Your task to perform on an android device: open app "Facebook Lite" Image 0: 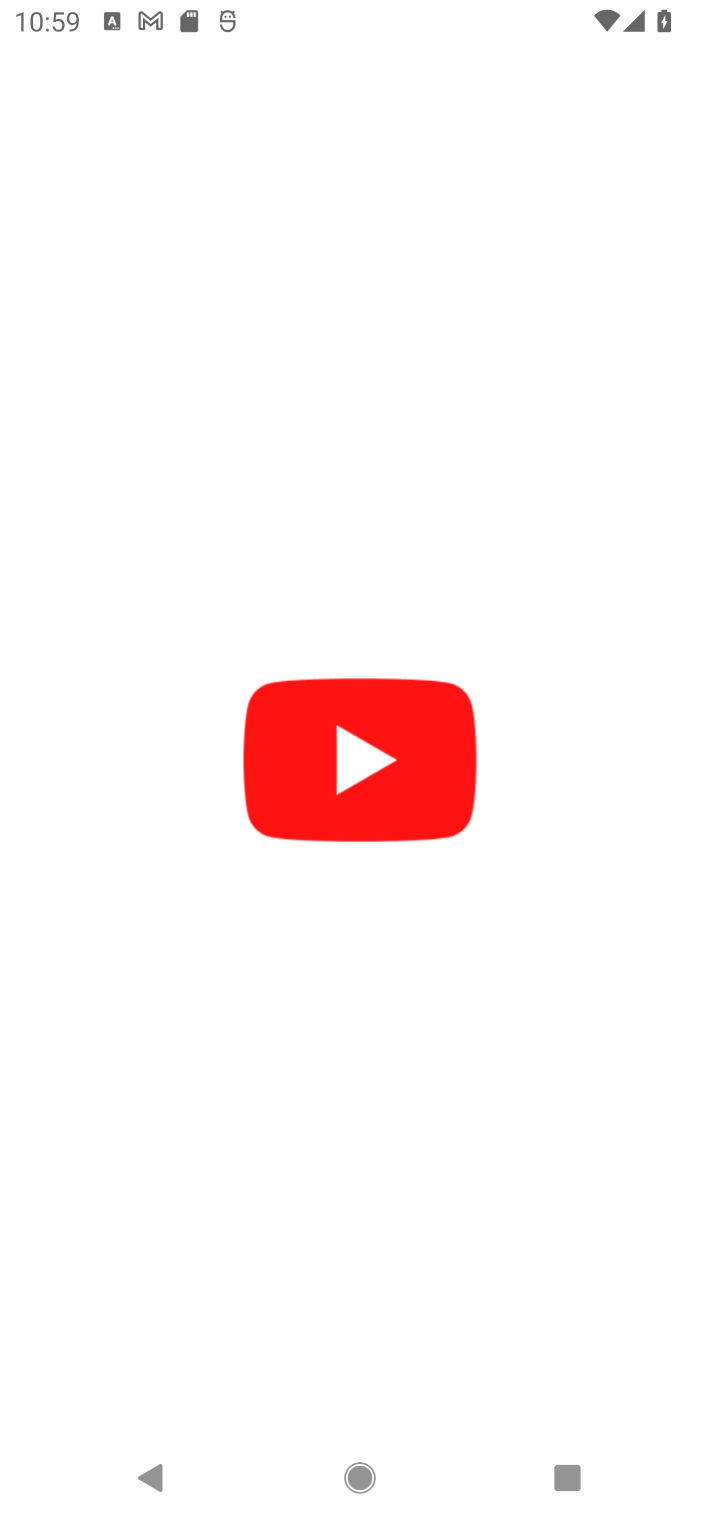
Step 0: press home button
Your task to perform on an android device: open app "Facebook Lite" Image 1: 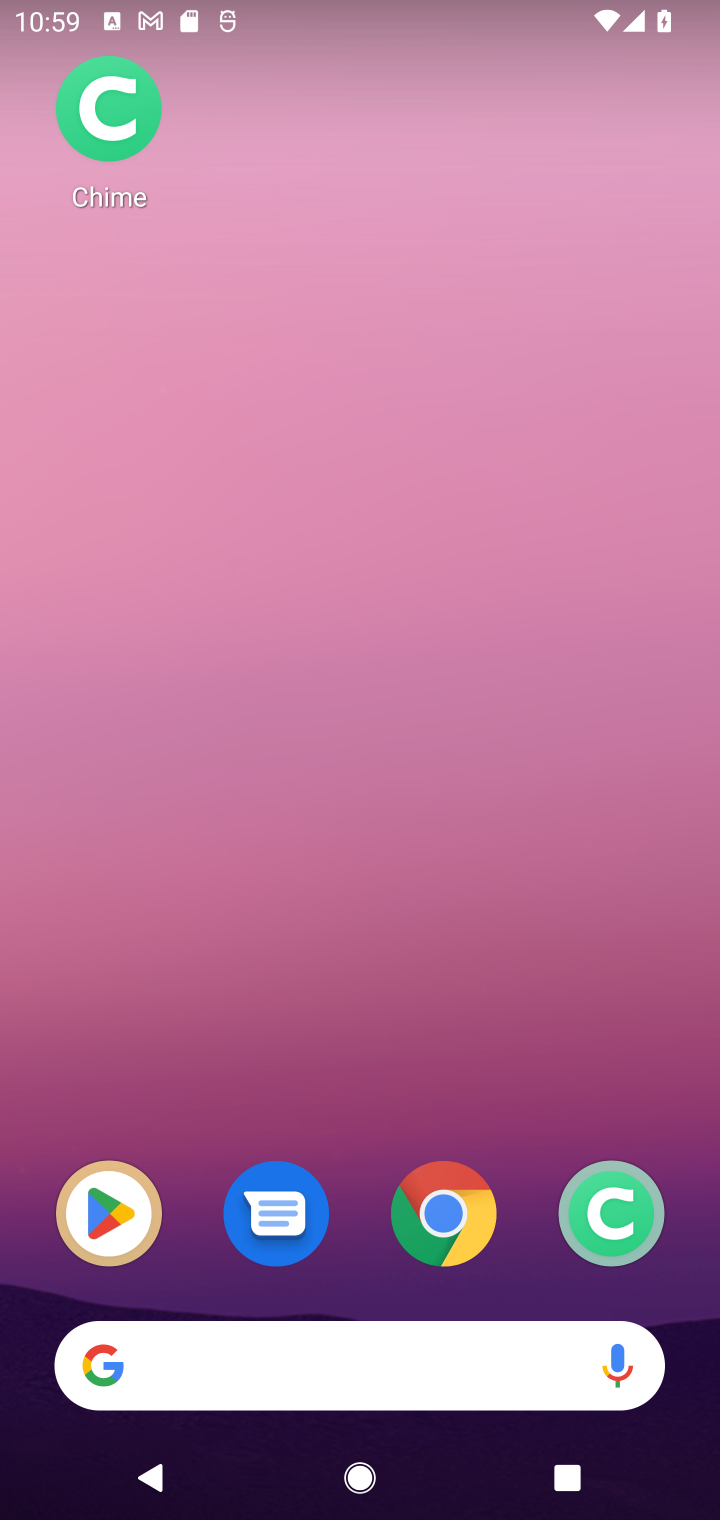
Step 1: click (80, 1216)
Your task to perform on an android device: open app "Facebook Lite" Image 2: 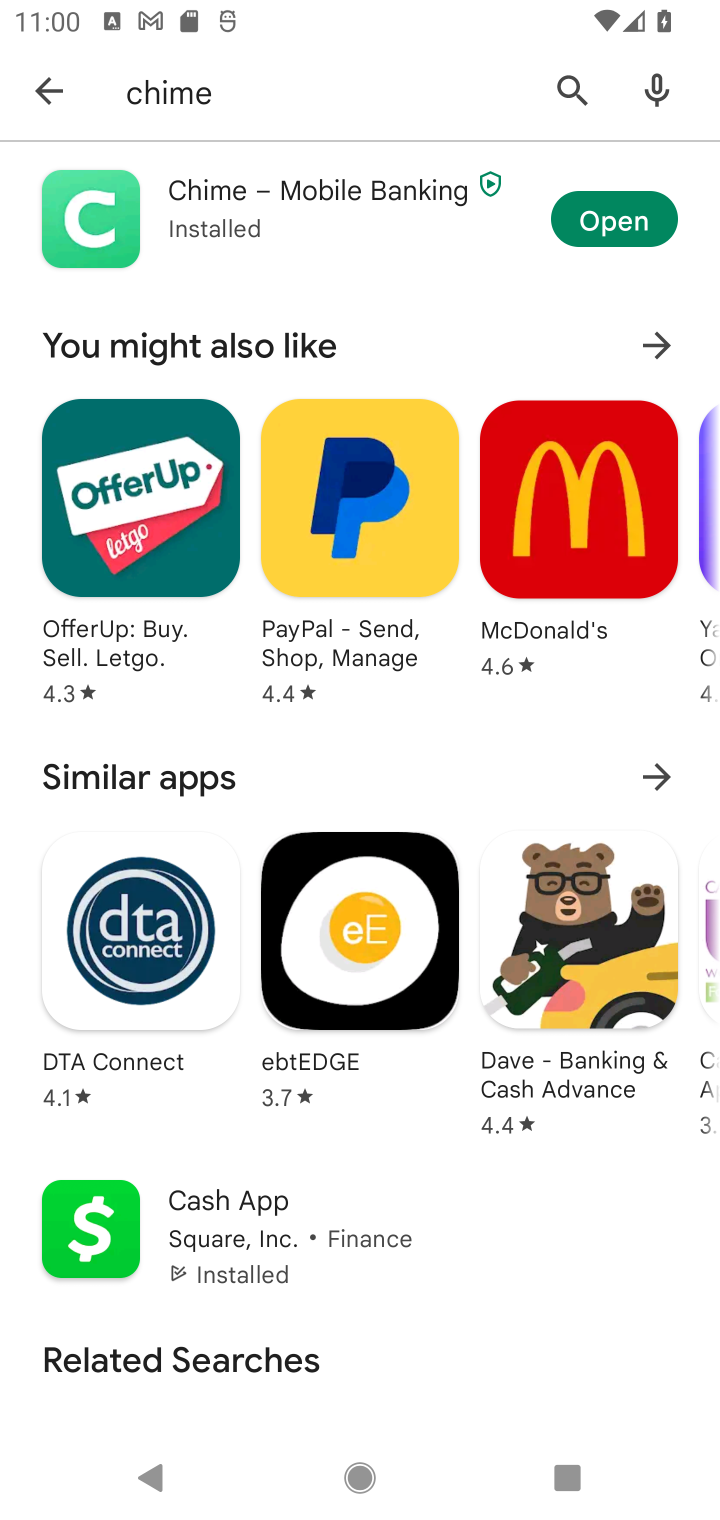
Step 2: click (37, 79)
Your task to perform on an android device: open app "Facebook Lite" Image 3: 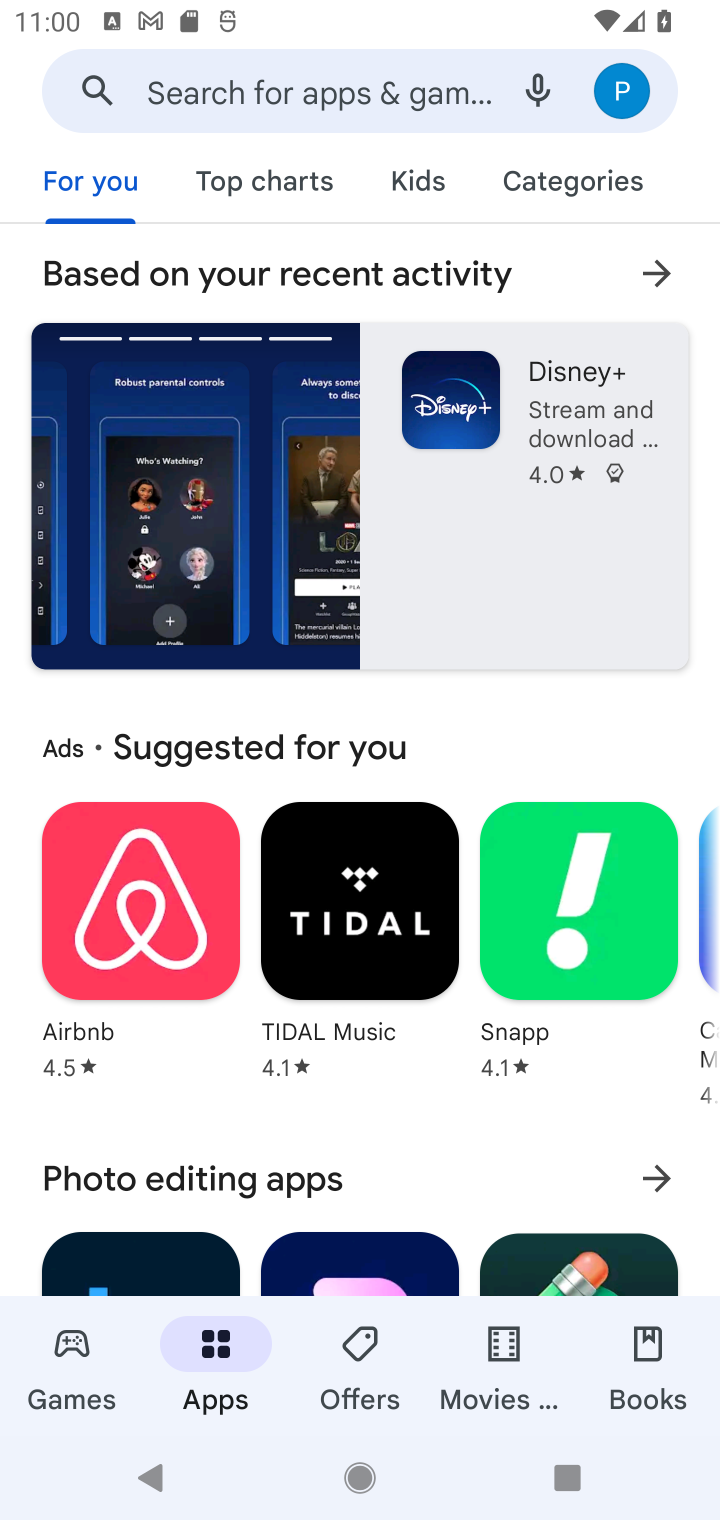
Step 3: click (233, 84)
Your task to perform on an android device: open app "Facebook Lite" Image 4: 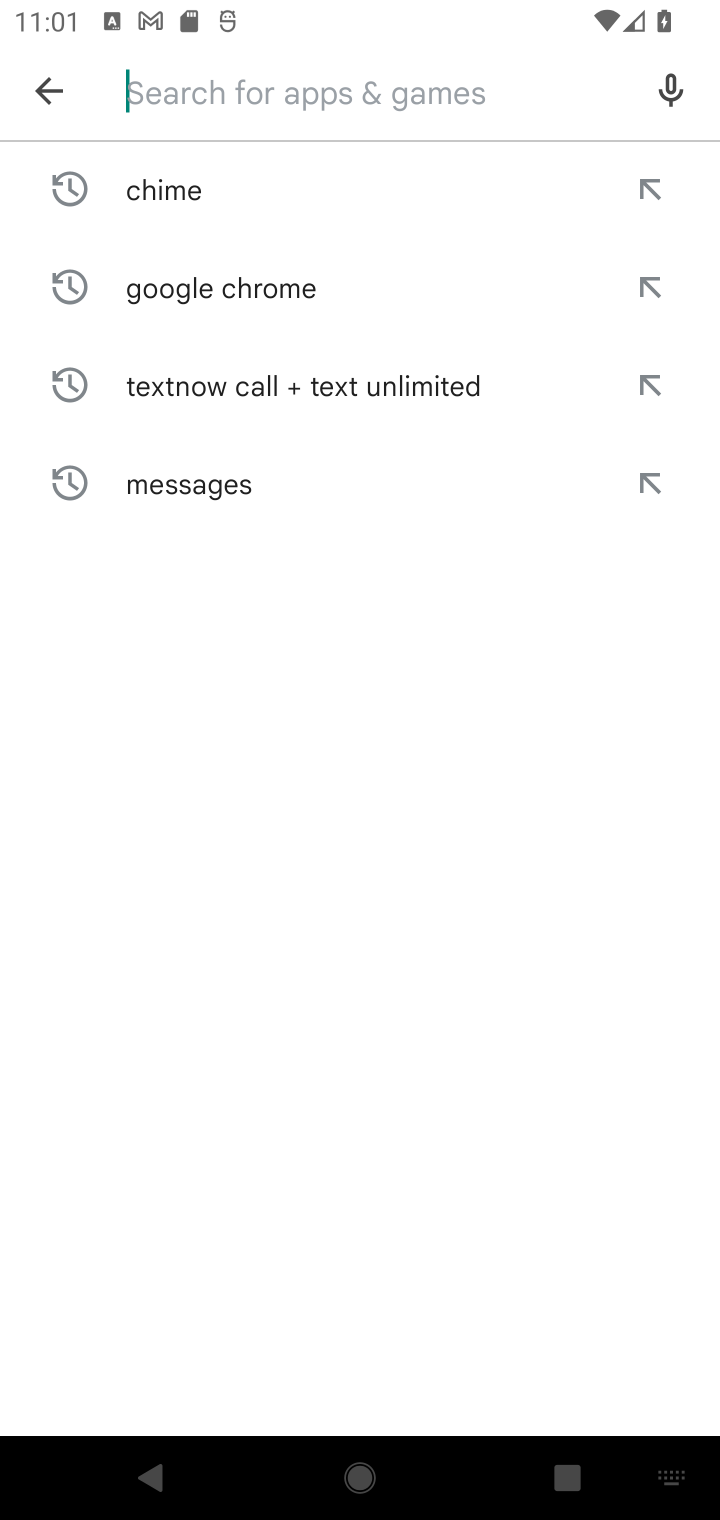
Step 4: type "Facebook Lite"
Your task to perform on an android device: open app "Facebook Lite" Image 5: 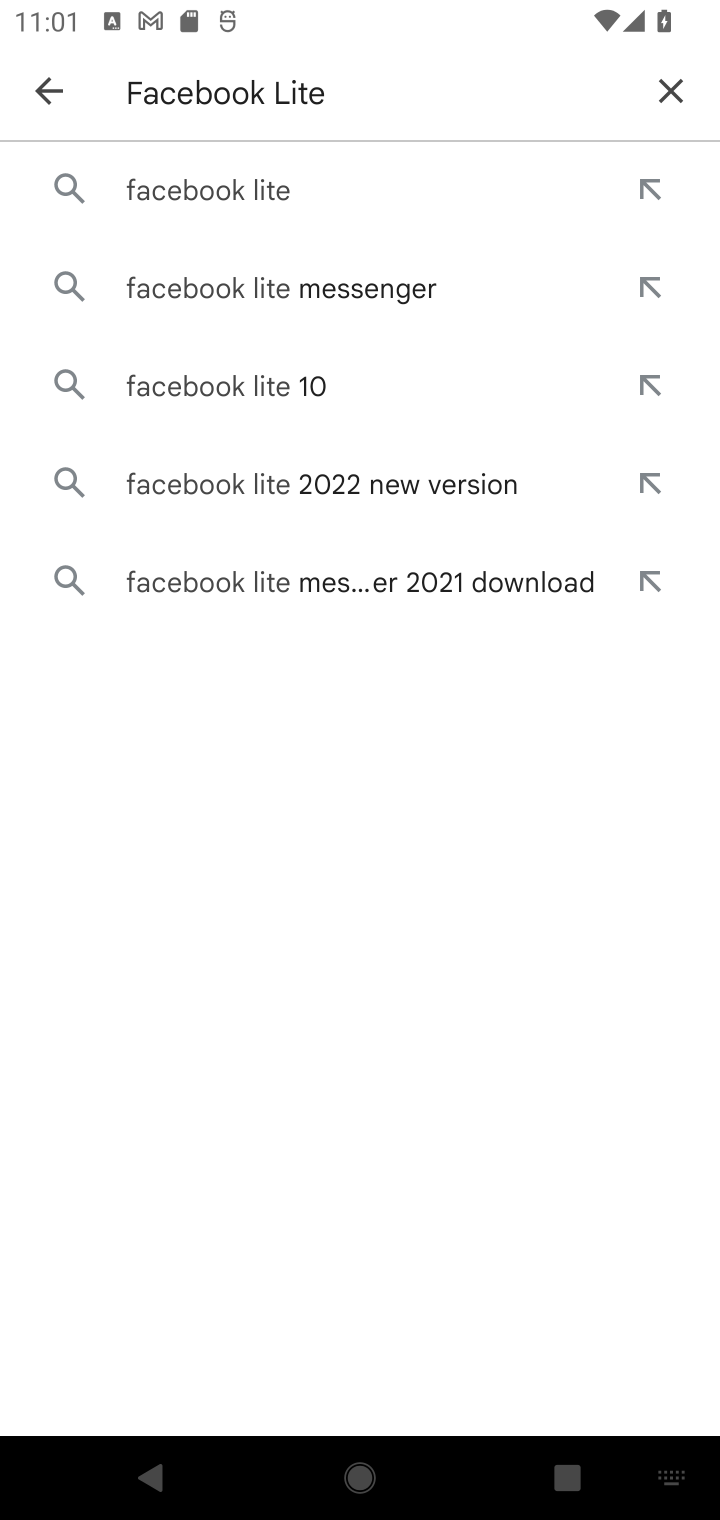
Step 5: click (209, 200)
Your task to perform on an android device: open app "Facebook Lite" Image 6: 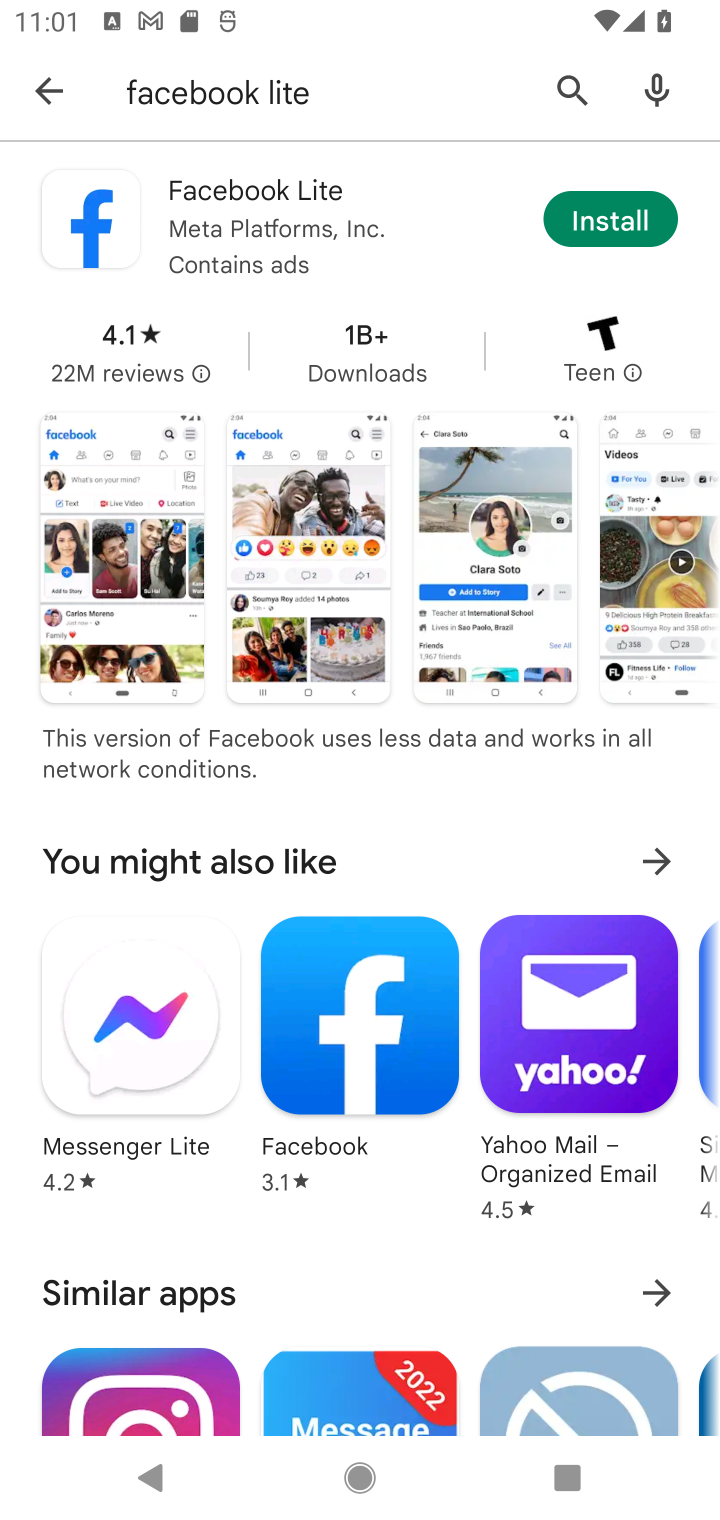
Step 6: click (604, 219)
Your task to perform on an android device: open app "Facebook Lite" Image 7: 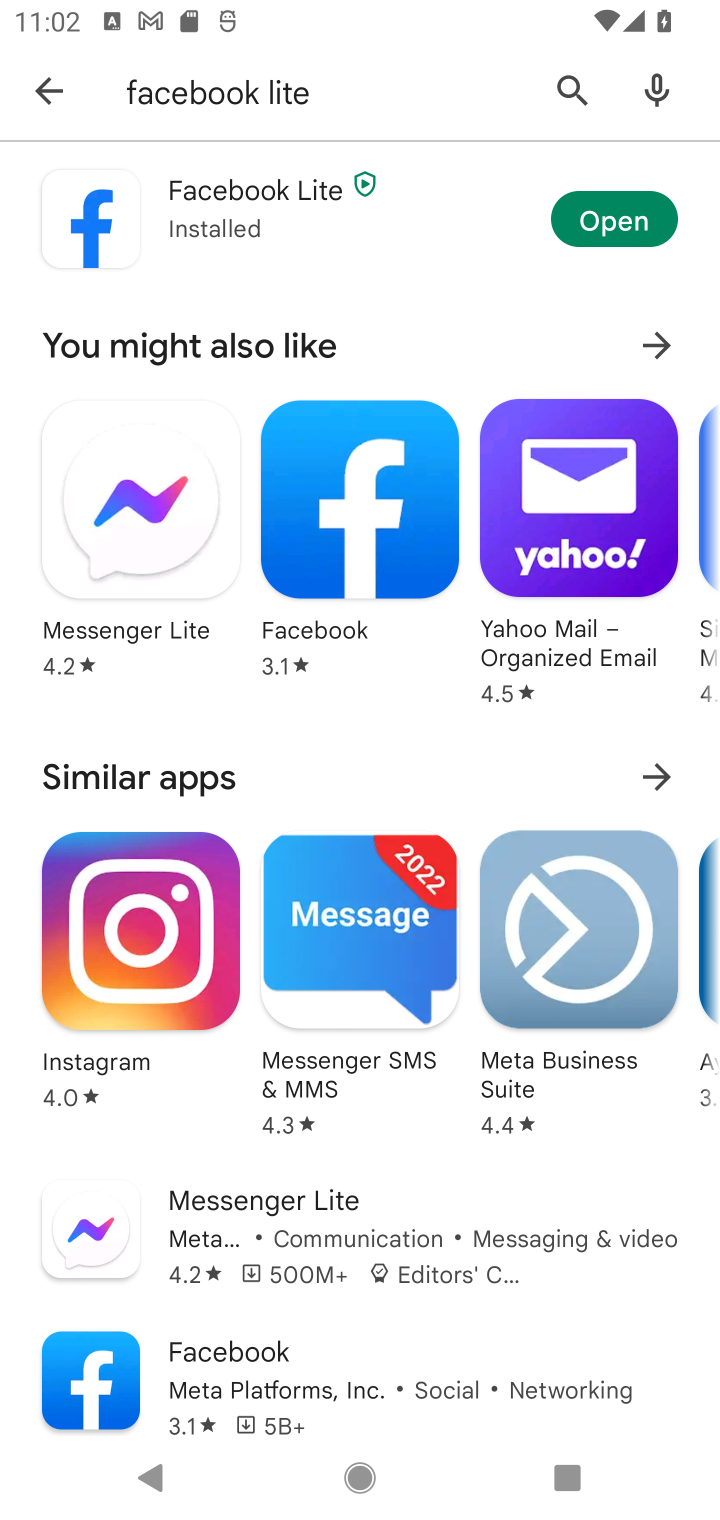
Step 7: click (614, 231)
Your task to perform on an android device: open app "Facebook Lite" Image 8: 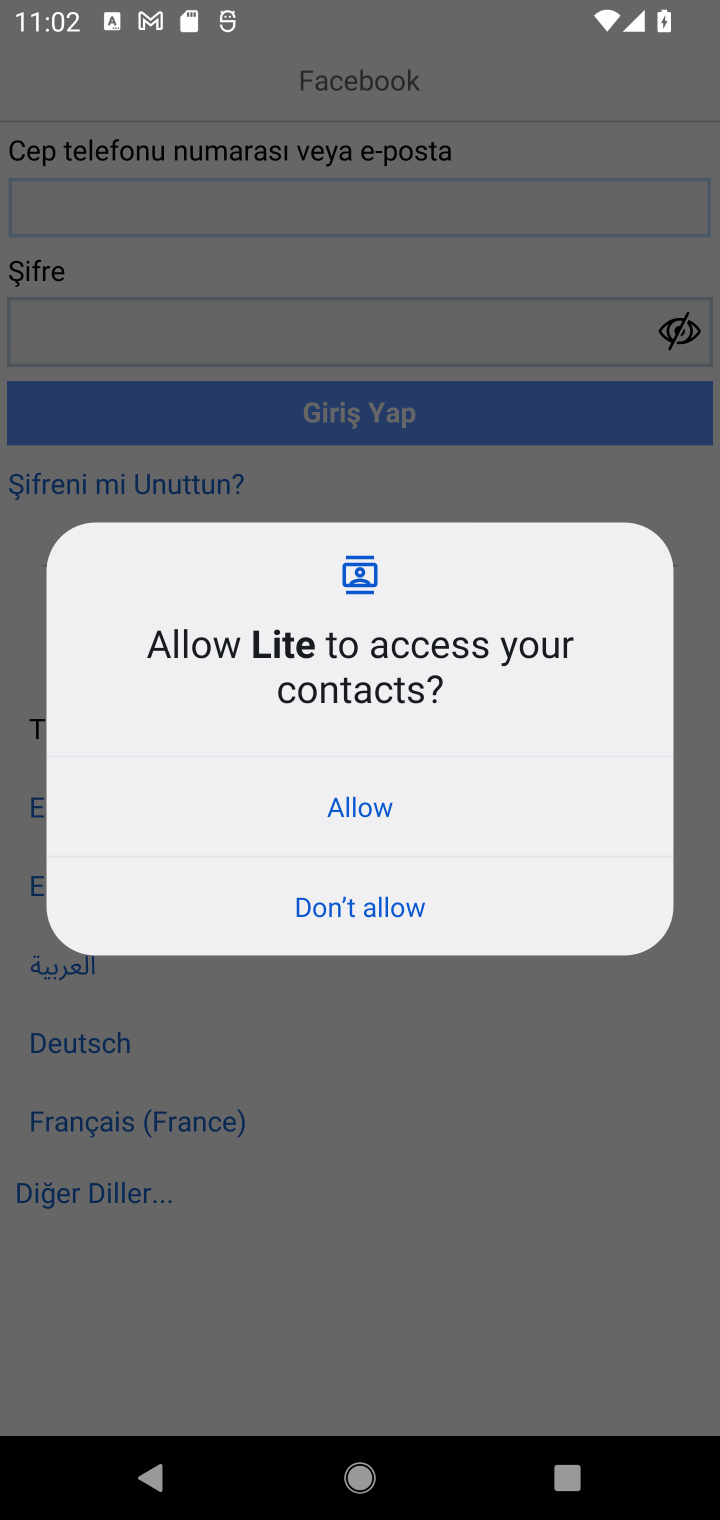
Step 8: click (365, 796)
Your task to perform on an android device: open app "Facebook Lite" Image 9: 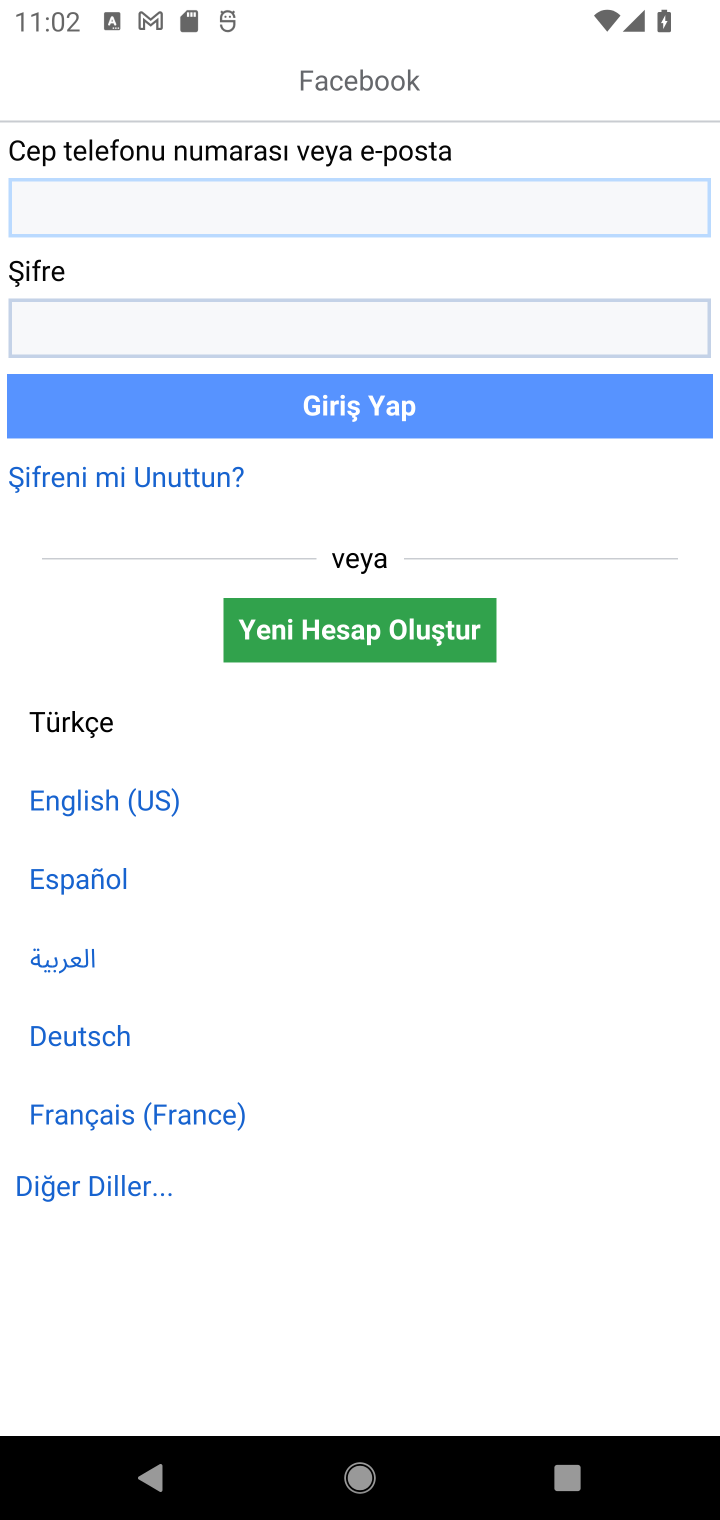
Step 9: task complete